Your task to perform on an android device: Add asus rog to the cart on ebay.com Image 0: 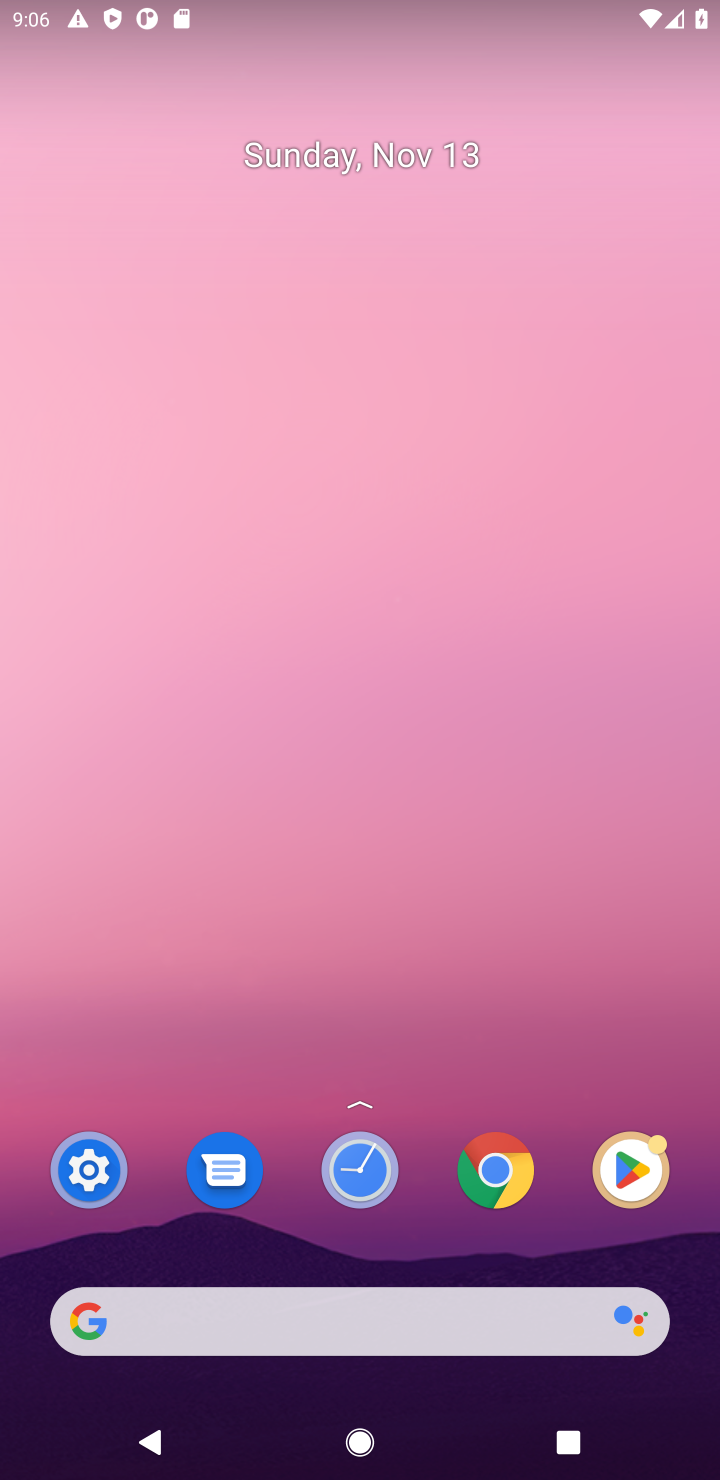
Step 0: click (376, 1316)
Your task to perform on an android device: Add asus rog to the cart on ebay.com Image 1: 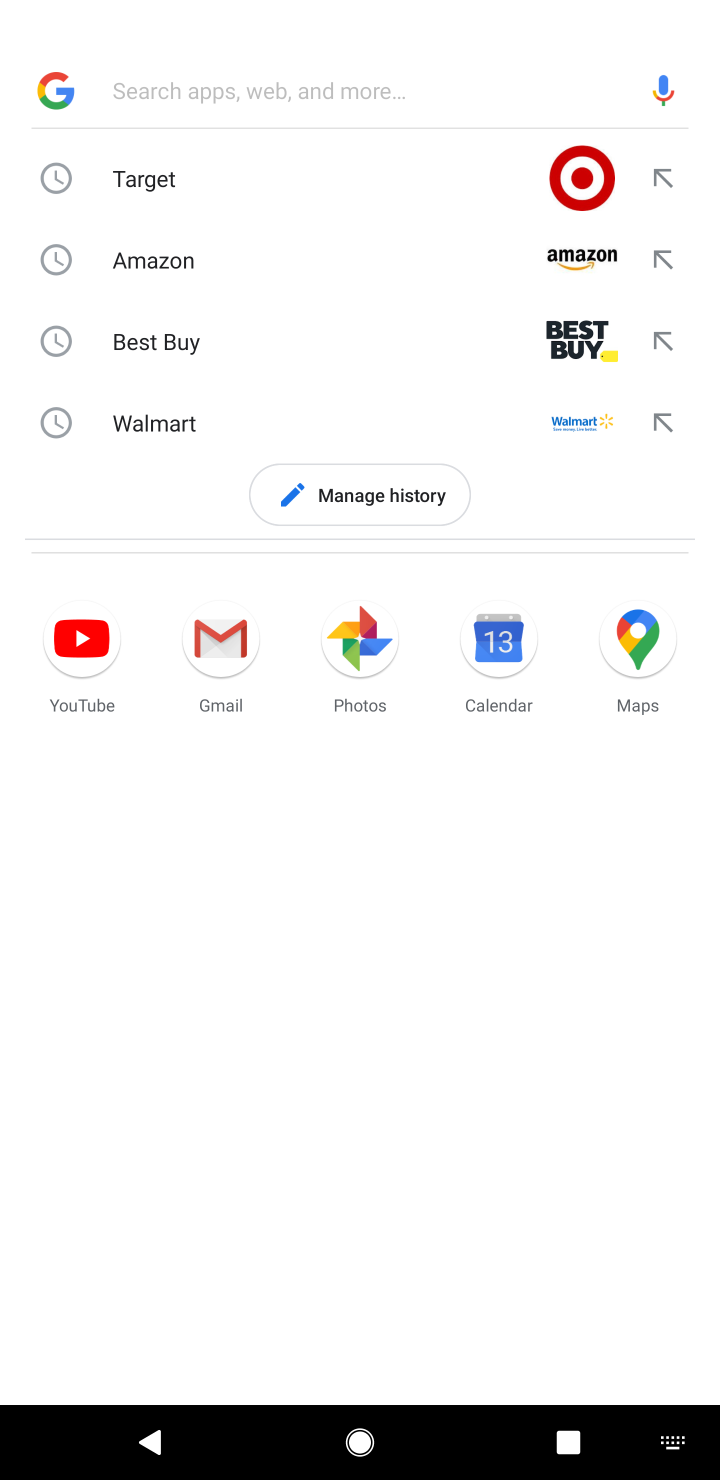
Step 1: type "ebay.com"
Your task to perform on an android device: Add asus rog to the cart on ebay.com Image 2: 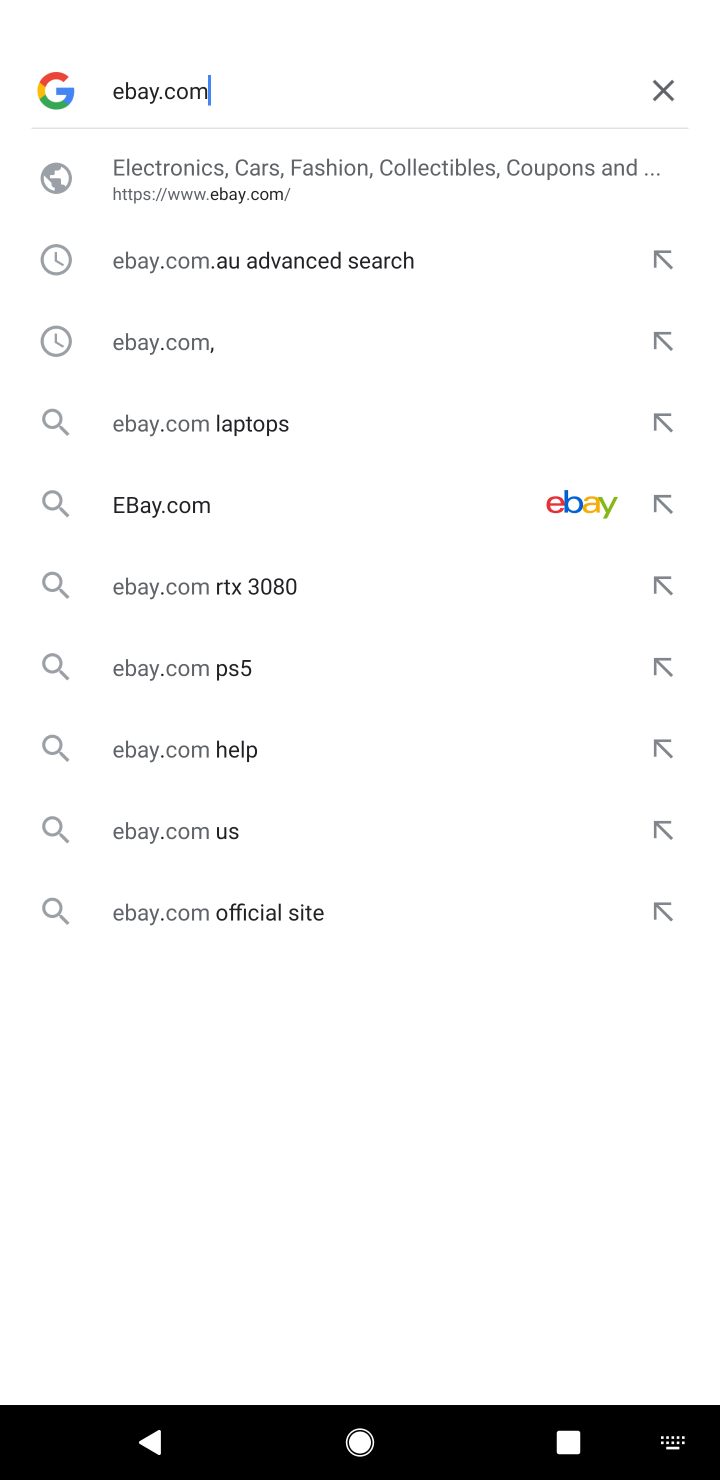
Step 2: click (255, 210)
Your task to perform on an android device: Add asus rog to the cart on ebay.com Image 3: 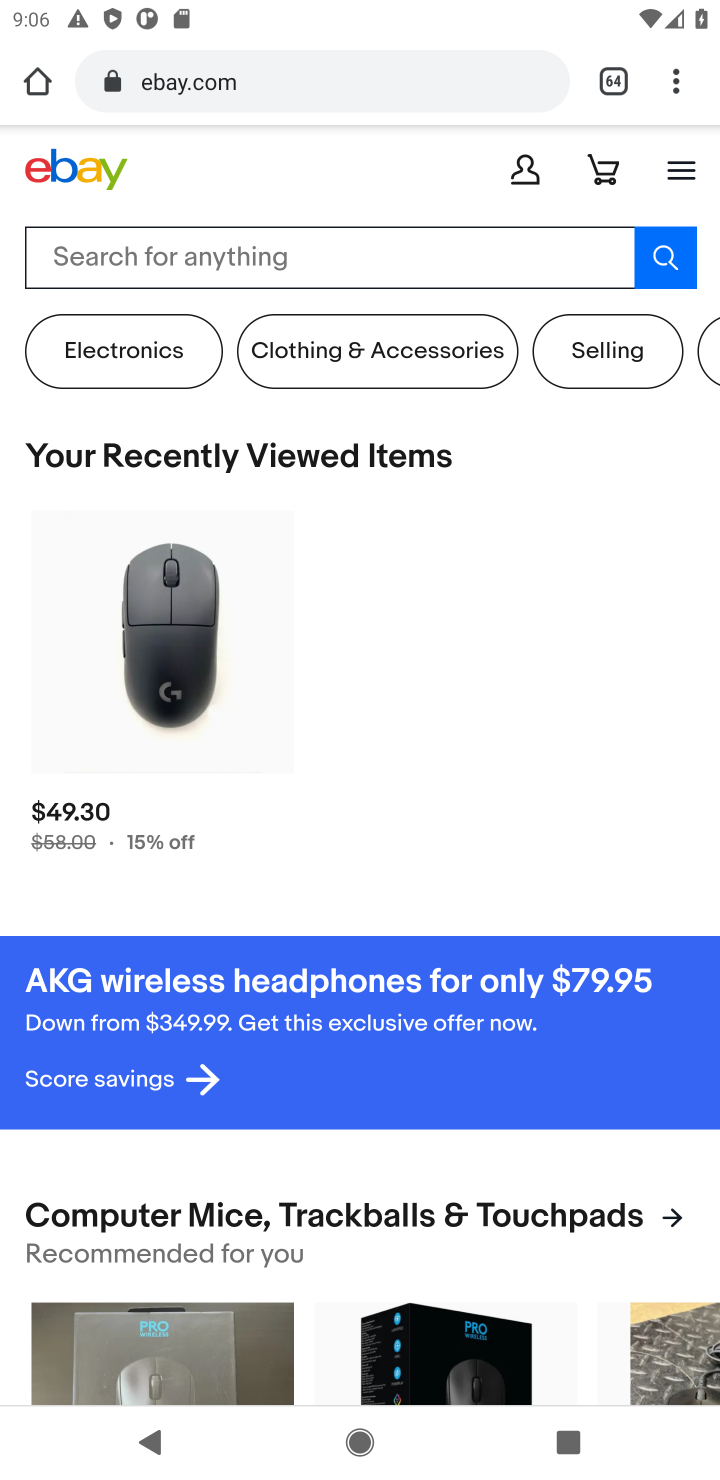
Step 3: task complete